Your task to perform on an android device: Do I have any events tomorrow? Image 0: 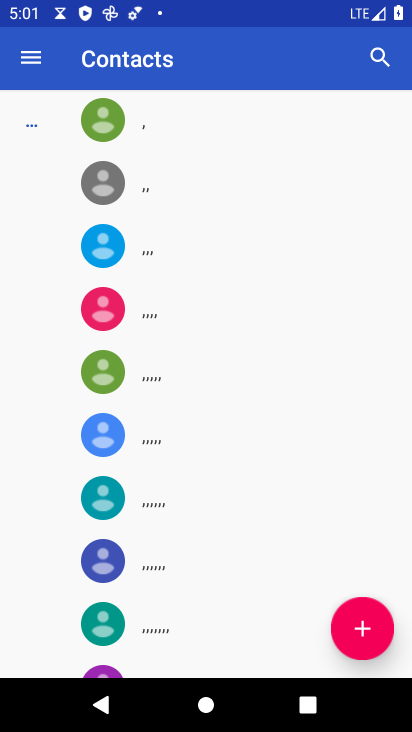
Step 0: press back button
Your task to perform on an android device: Do I have any events tomorrow? Image 1: 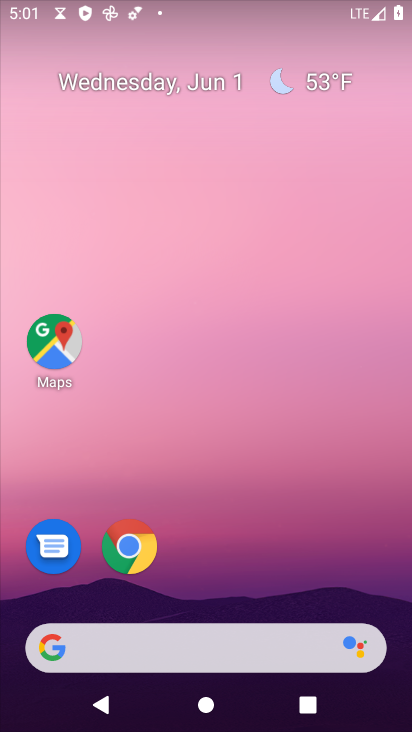
Step 1: drag from (329, 535) to (263, 6)
Your task to perform on an android device: Do I have any events tomorrow? Image 2: 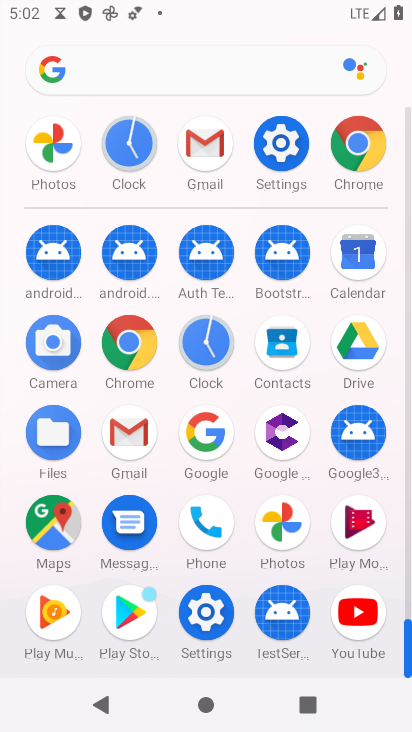
Step 2: drag from (8, 519) to (15, 217)
Your task to perform on an android device: Do I have any events tomorrow? Image 3: 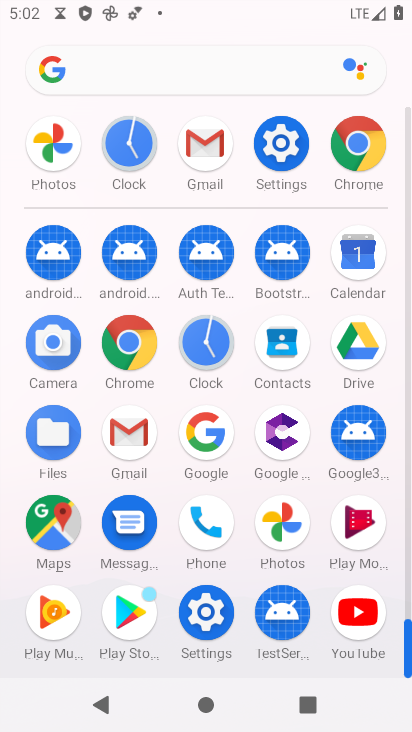
Step 3: click (359, 245)
Your task to perform on an android device: Do I have any events tomorrow? Image 4: 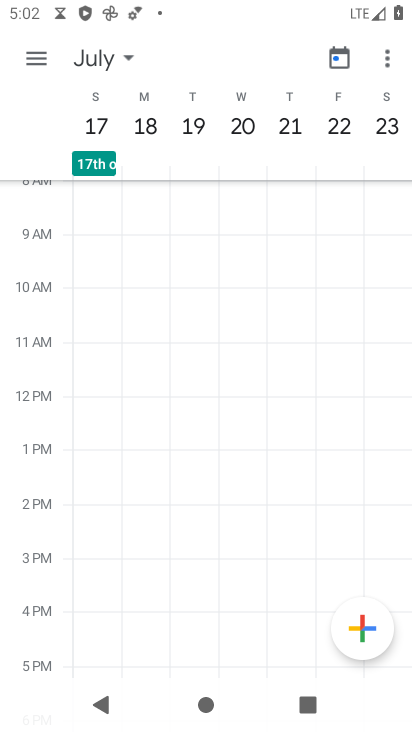
Step 4: click (333, 55)
Your task to perform on an android device: Do I have any events tomorrow? Image 5: 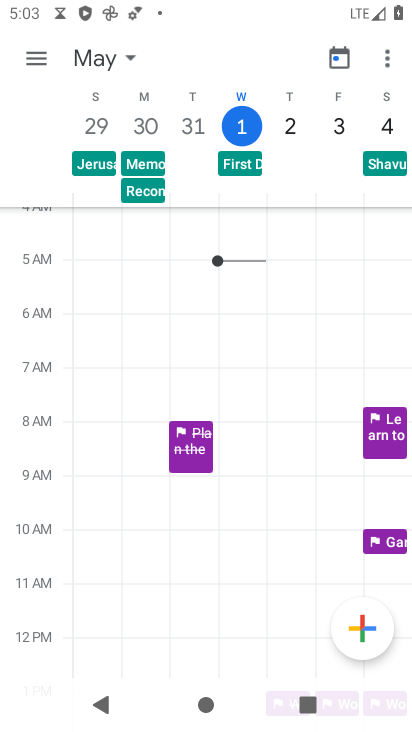
Step 5: click (281, 112)
Your task to perform on an android device: Do I have any events tomorrow? Image 6: 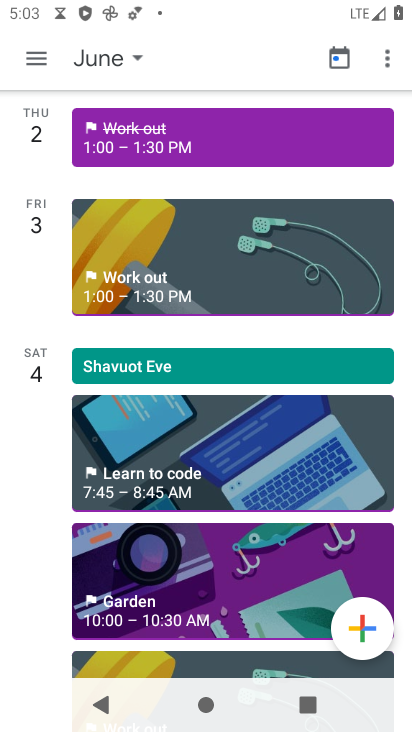
Step 6: task complete